Your task to perform on an android device: Go to ESPN.com Image 0: 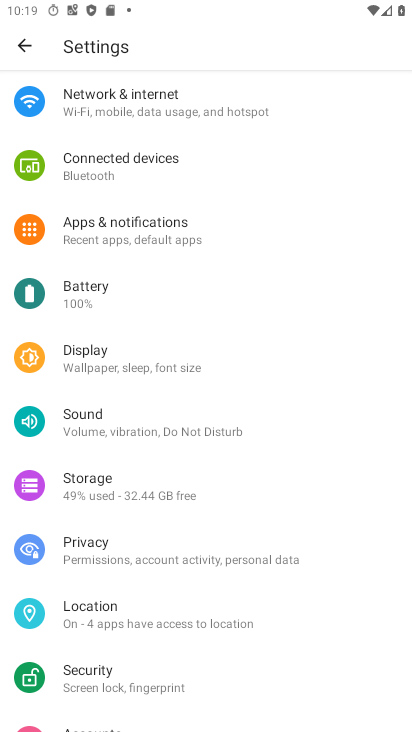
Step 0: press home button
Your task to perform on an android device: Go to ESPN.com Image 1: 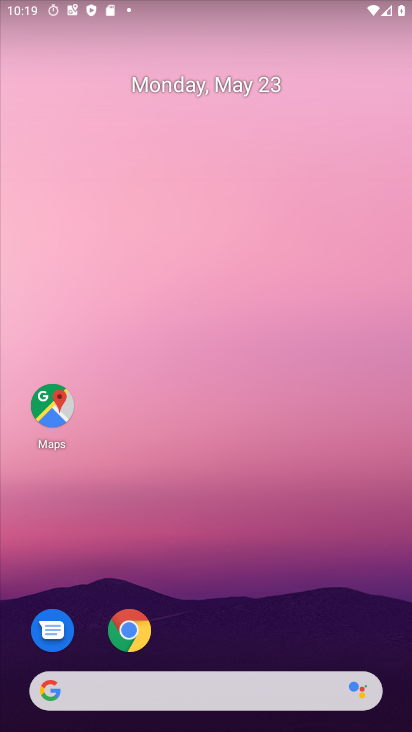
Step 1: click (137, 654)
Your task to perform on an android device: Go to ESPN.com Image 2: 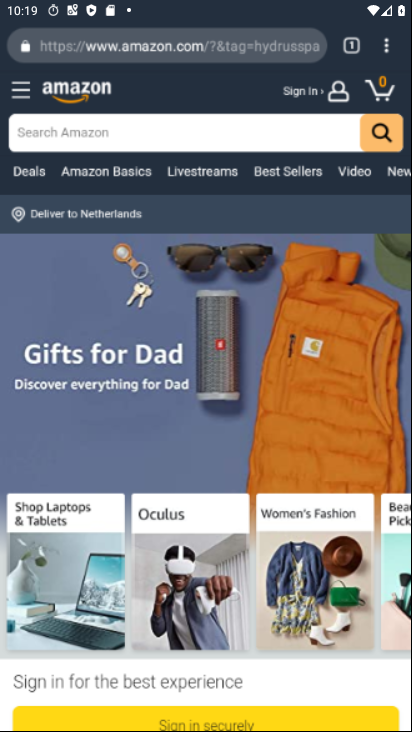
Step 2: click (84, 55)
Your task to perform on an android device: Go to ESPN.com Image 3: 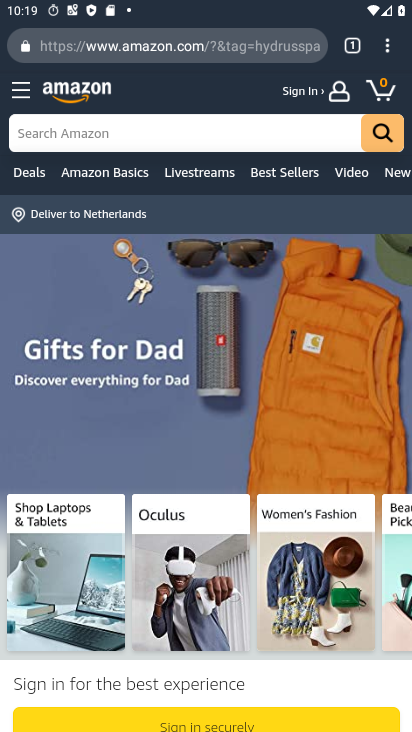
Step 3: click (92, 50)
Your task to perform on an android device: Go to ESPN.com Image 4: 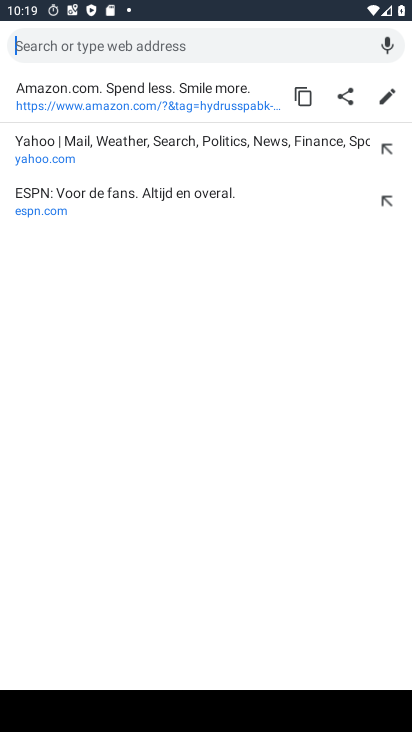
Step 4: type "espn.com"
Your task to perform on an android device: Go to ESPN.com Image 5: 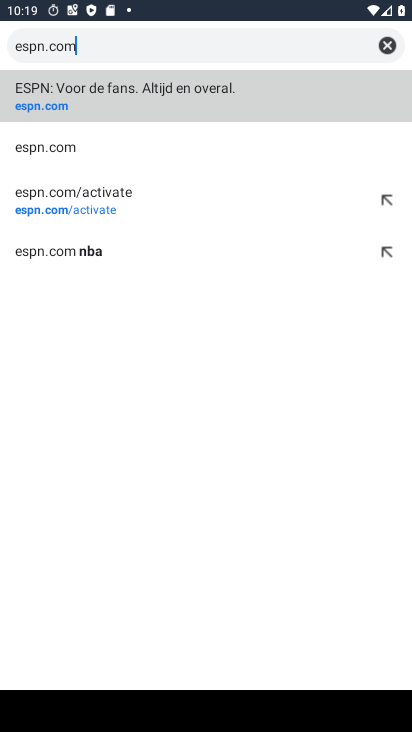
Step 5: click (43, 149)
Your task to perform on an android device: Go to ESPN.com Image 6: 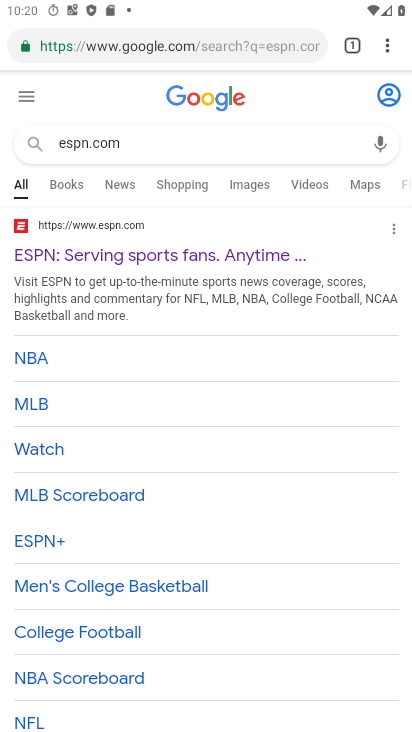
Step 6: click (37, 253)
Your task to perform on an android device: Go to ESPN.com Image 7: 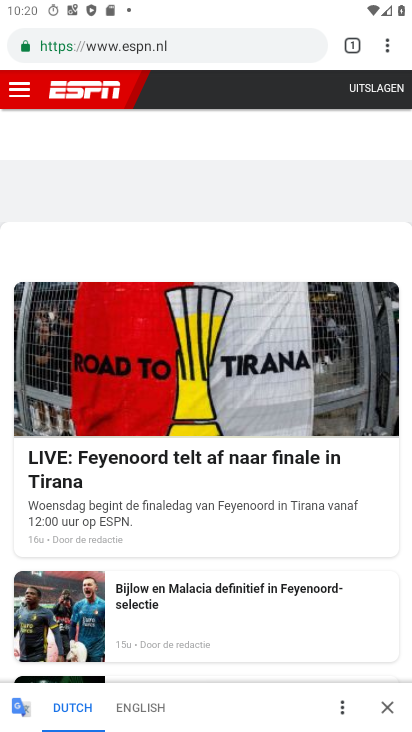
Step 7: task complete